Your task to perform on an android device: turn off notifications settings in the gmail app Image 0: 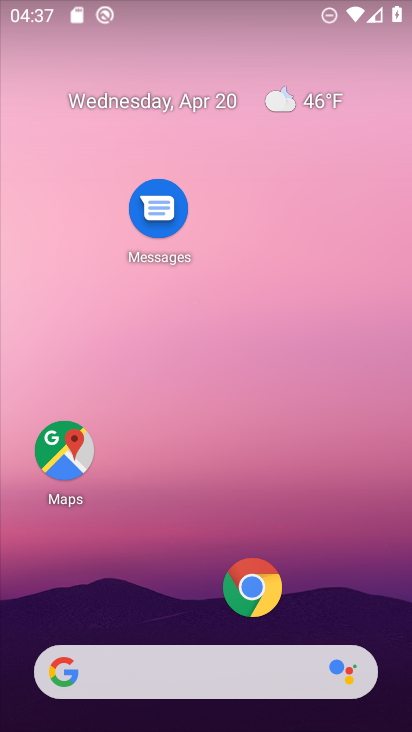
Step 0: drag from (204, 624) to (192, 211)
Your task to perform on an android device: turn off notifications settings in the gmail app Image 1: 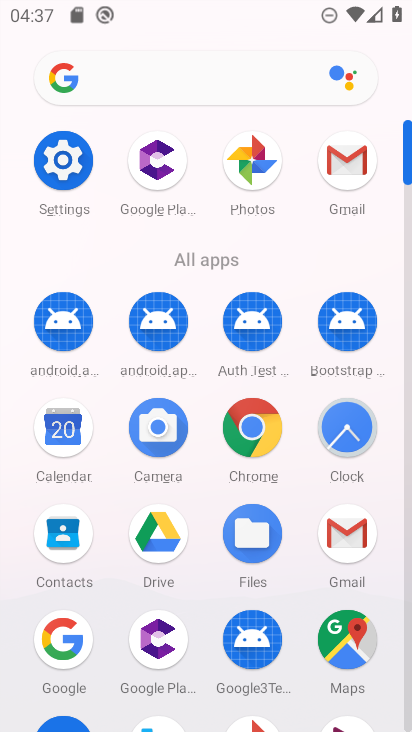
Step 1: click (337, 174)
Your task to perform on an android device: turn off notifications settings in the gmail app Image 2: 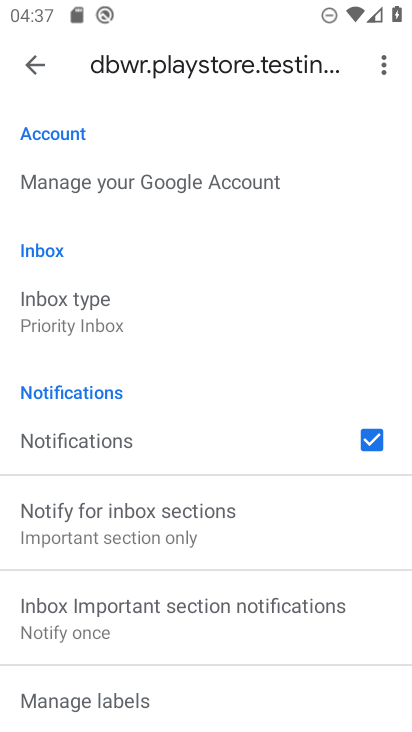
Step 2: drag from (146, 638) to (152, 334)
Your task to perform on an android device: turn off notifications settings in the gmail app Image 3: 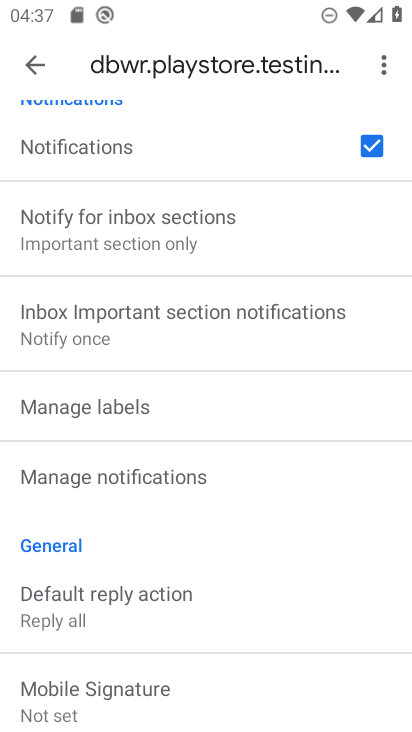
Step 3: click (145, 471)
Your task to perform on an android device: turn off notifications settings in the gmail app Image 4: 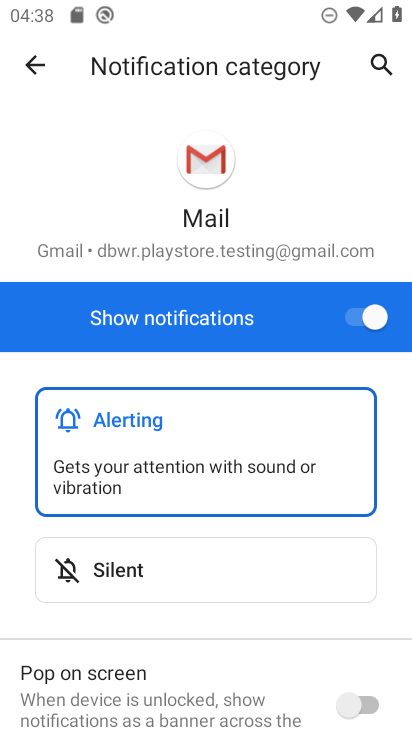
Step 4: drag from (195, 604) to (229, 228)
Your task to perform on an android device: turn off notifications settings in the gmail app Image 5: 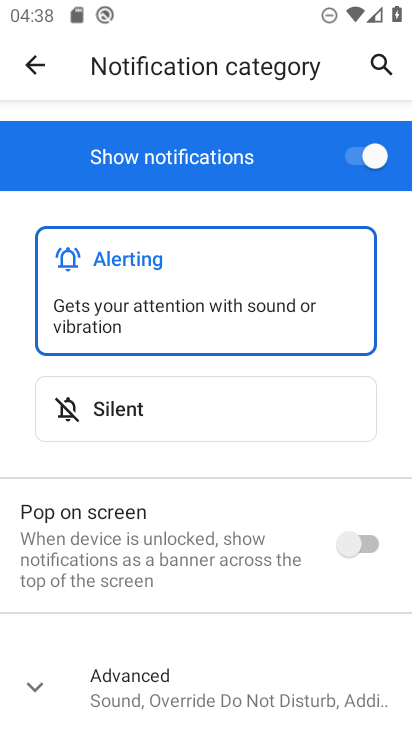
Step 5: click (351, 156)
Your task to perform on an android device: turn off notifications settings in the gmail app Image 6: 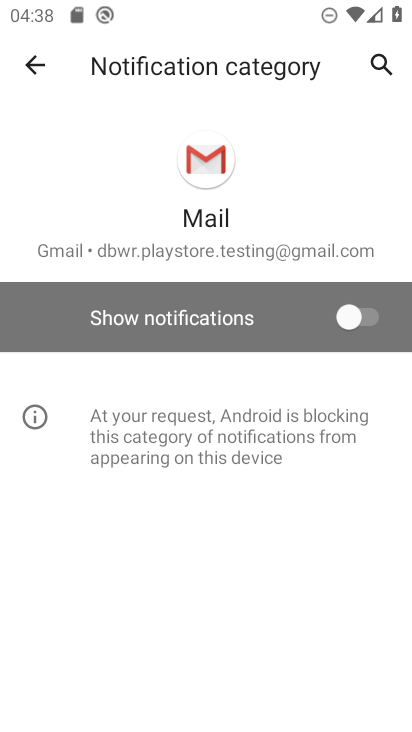
Step 6: task complete